Your task to perform on an android device: toggle wifi Image 0: 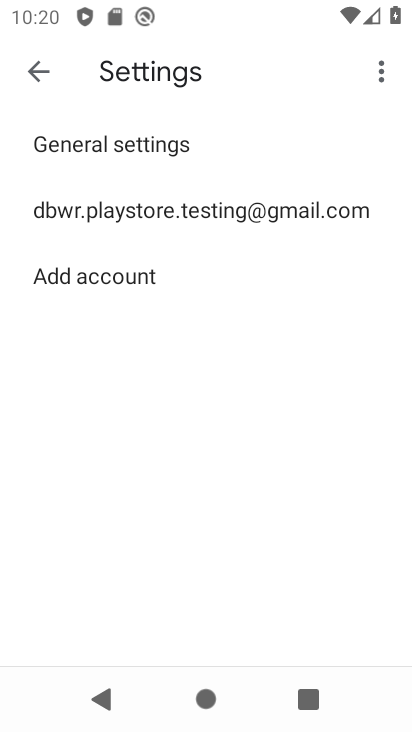
Step 0: press home button
Your task to perform on an android device: toggle wifi Image 1: 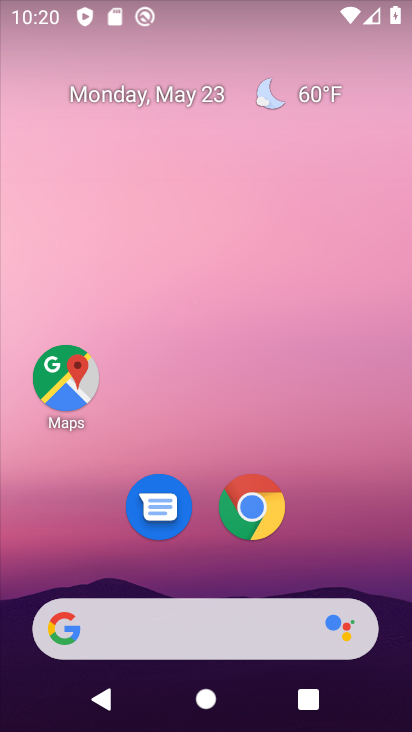
Step 1: drag from (328, 547) to (286, 49)
Your task to perform on an android device: toggle wifi Image 2: 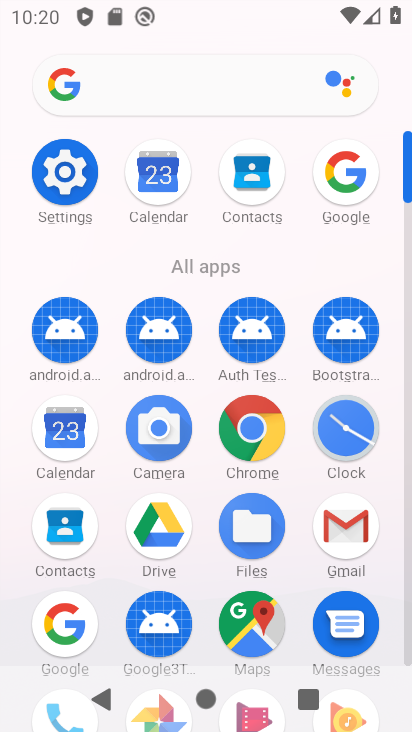
Step 2: click (64, 172)
Your task to perform on an android device: toggle wifi Image 3: 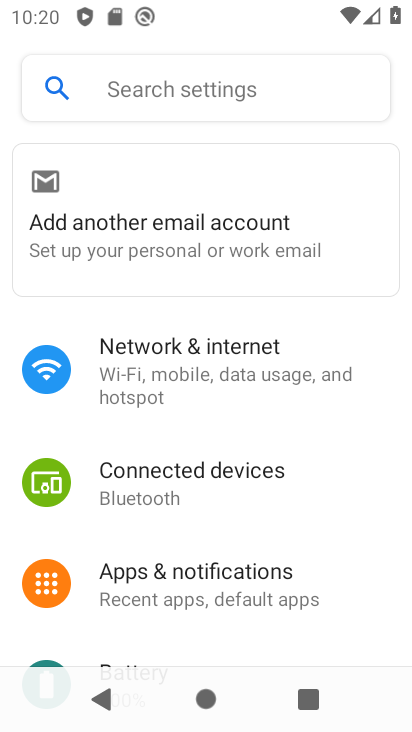
Step 3: click (135, 363)
Your task to perform on an android device: toggle wifi Image 4: 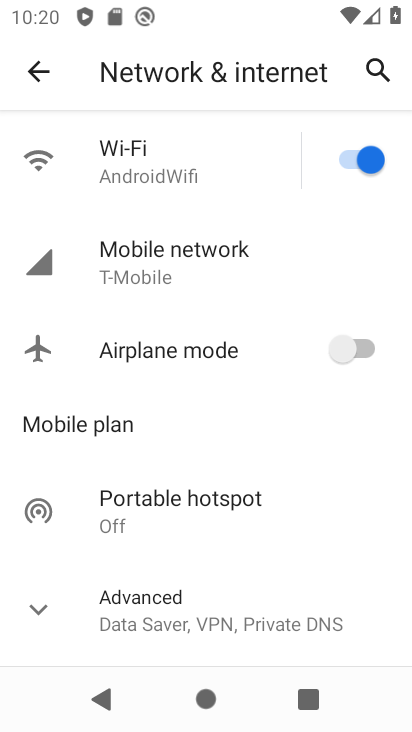
Step 4: click (348, 159)
Your task to perform on an android device: toggle wifi Image 5: 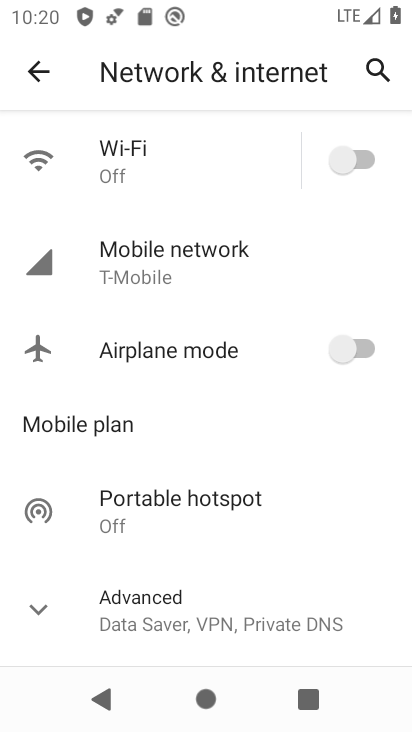
Step 5: task complete